Your task to perform on an android device: move a message to another label in the gmail app Image 0: 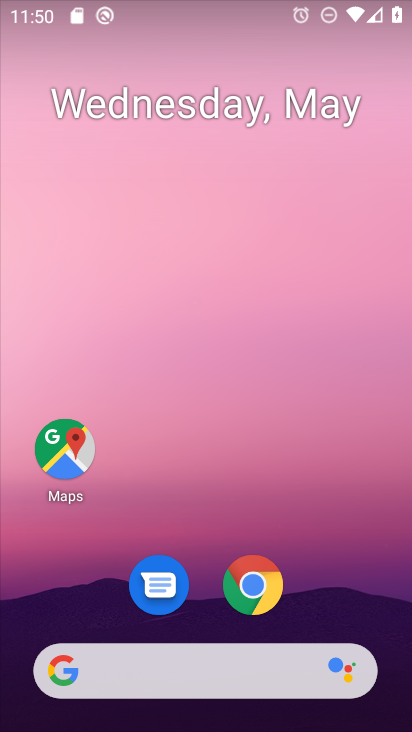
Step 0: drag from (240, 522) to (239, 0)
Your task to perform on an android device: move a message to another label in the gmail app Image 1: 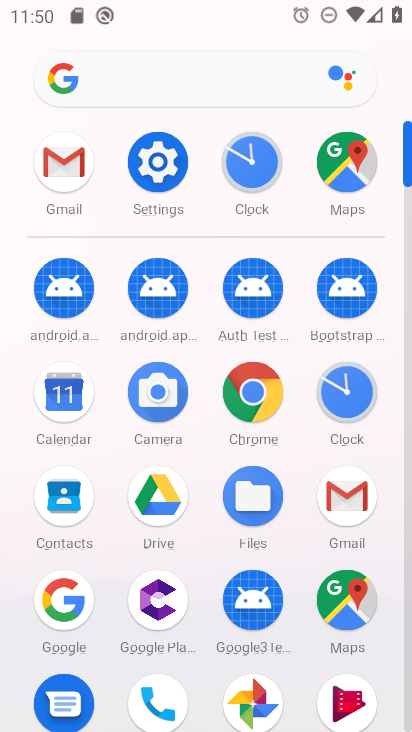
Step 1: click (56, 161)
Your task to perform on an android device: move a message to another label in the gmail app Image 2: 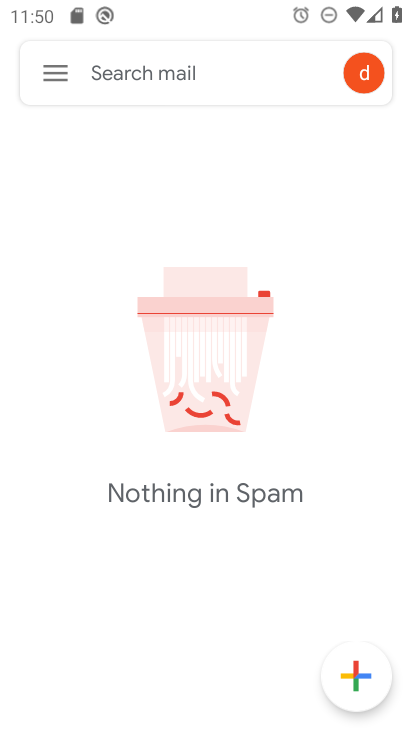
Step 2: click (59, 69)
Your task to perform on an android device: move a message to another label in the gmail app Image 3: 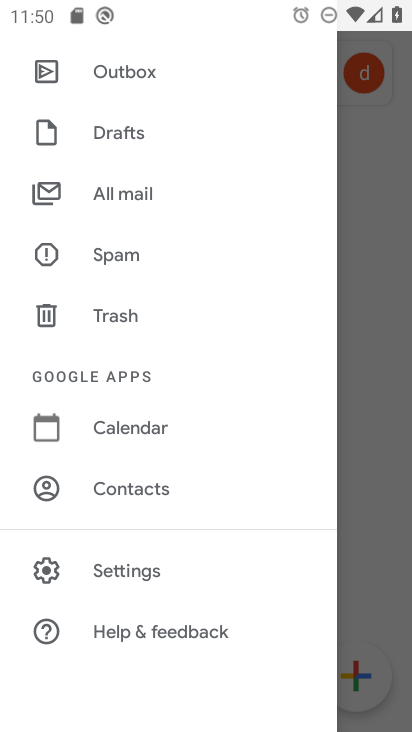
Step 3: click (114, 190)
Your task to perform on an android device: move a message to another label in the gmail app Image 4: 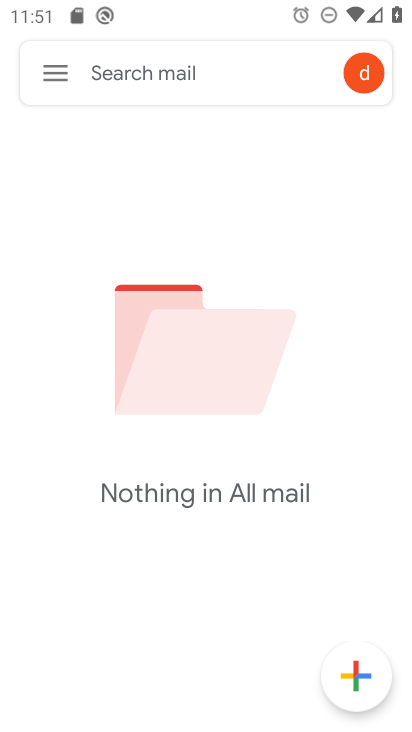
Step 4: task complete